Your task to perform on an android device: turn off sleep mode Image 0: 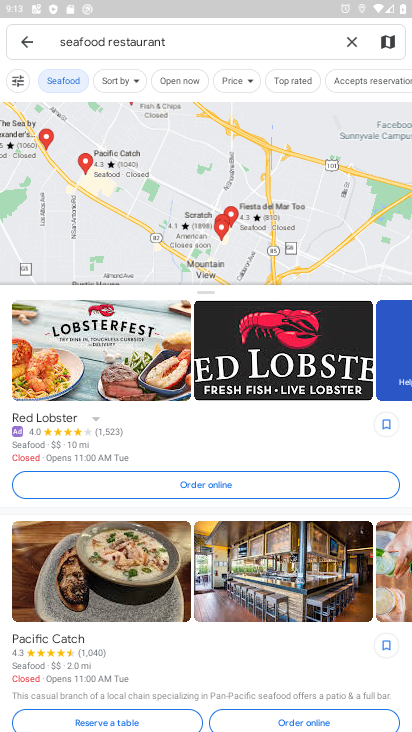
Step 0: press home button
Your task to perform on an android device: turn off sleep mode Image 1: 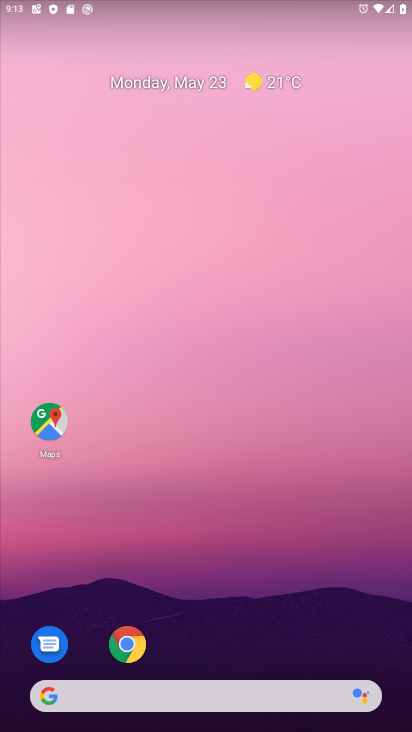
Step 1: drag from (191, 731) to (256, 42)
Your task to perform on an android device: turn off sleep mode Image 2: 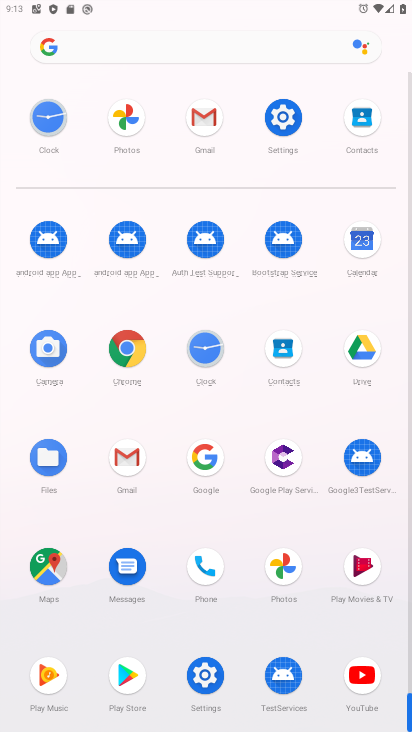
Step 2: click (284, 131)
Your task to perform on an android device: turn off sleep mode Image 3: 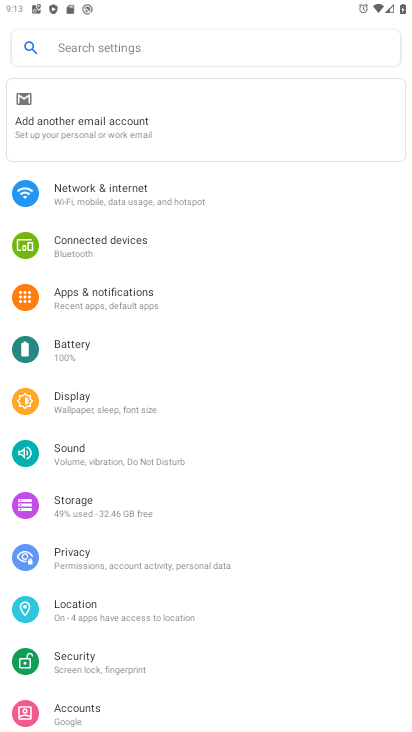
Step 3: click (132, 408)
Your task to perform on an android device: turn off sleep mode Image 4: 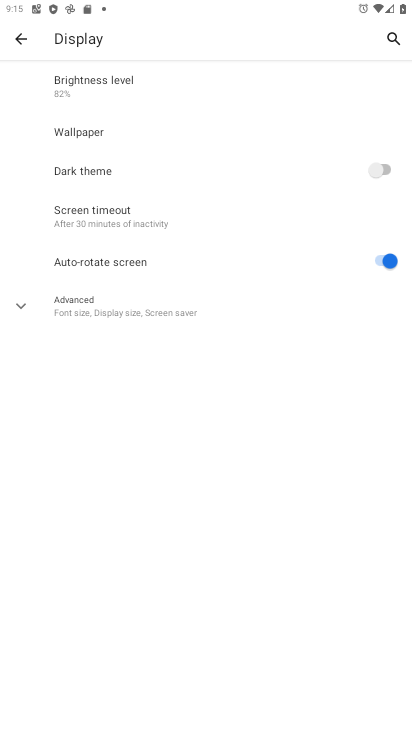
Step 4: task complete